Your task to perform on an android device: Go to Maps Image 0: 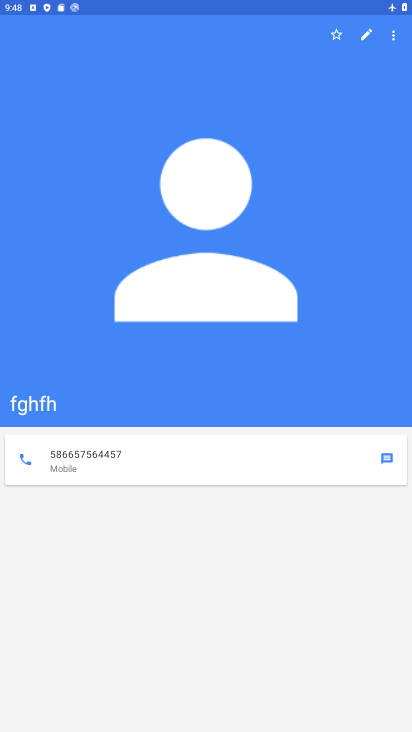
Step 0: press home button
Your task to perform on an android device: Go to Maps Image 1: 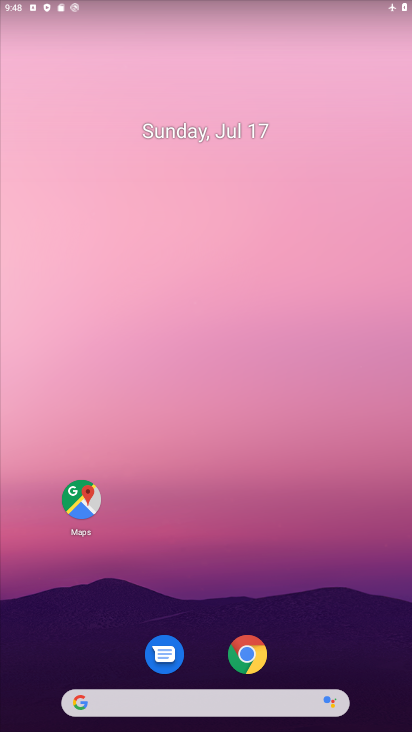
Step 1: click (75, 509)
Your task to perform on an android device: Go to Maps Image 2: 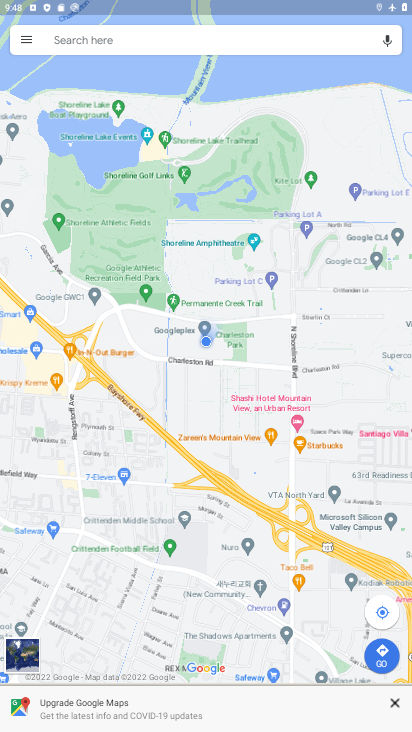
Step 2: task complete